Your task to perform on an android device: Check the settings for the Spotify app Image 0: 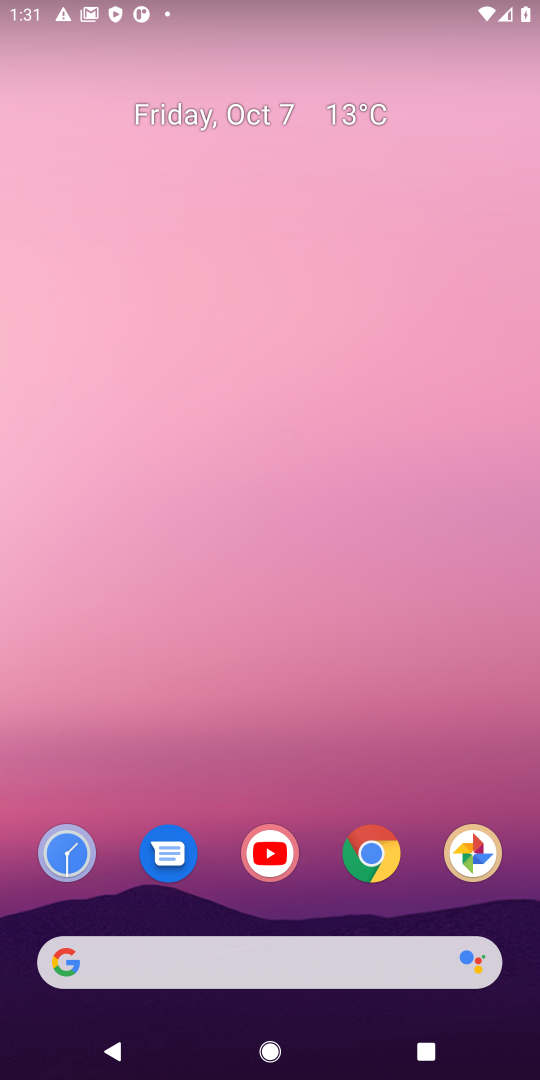
Step 0: task impossible